Your task to perform on an android device: Go to ESPN.com Image 0: 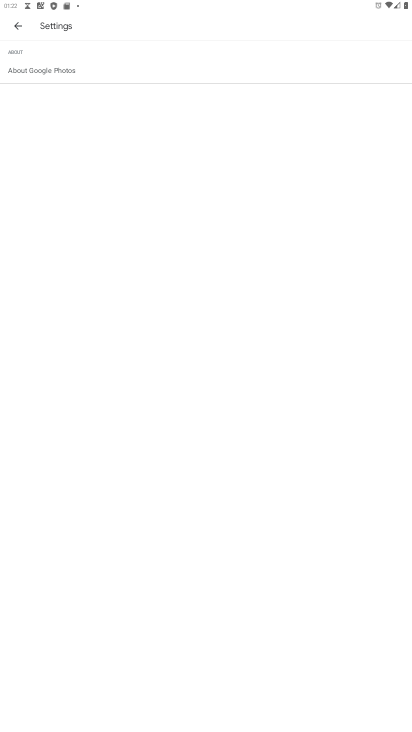
Step 0: press home button
Your task to perform on an android device: Go to ESPN.com Image 1: 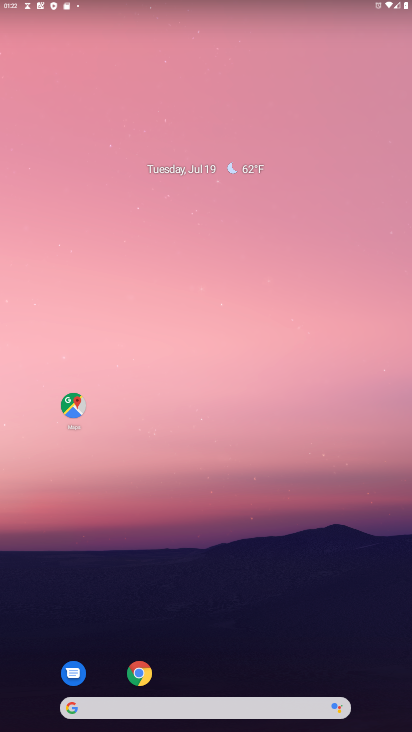
Step 1: drag from (258, 633) to (167, 42)
Your task to perform on an android device: Go to ESPN.com Image 2: 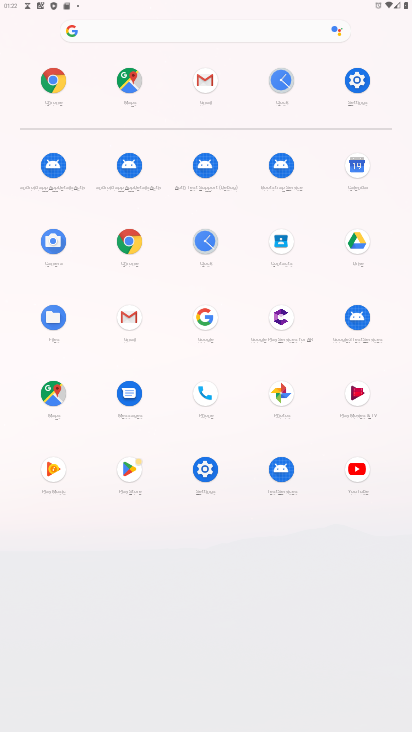
Step 2: click (47, 78)
Your task to perform on an android device: Go to ESPN.com Image 3: 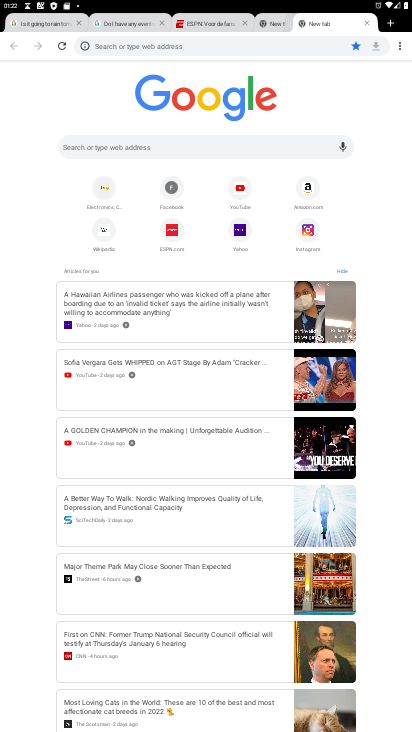
Step 3: click (184, 224)
Your task to perform on an android device: Go to ESPN.com Image 4: 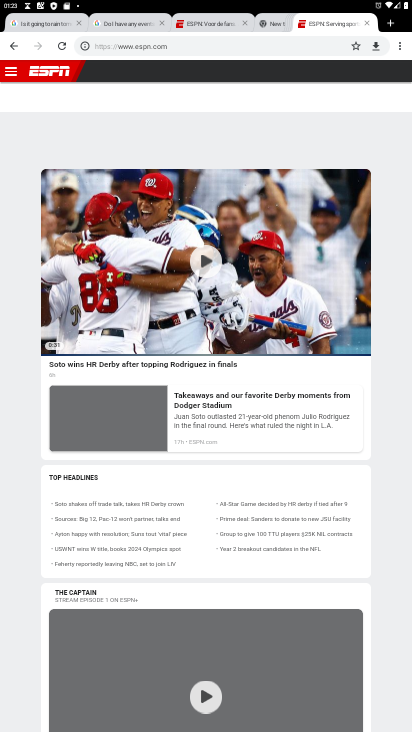
Step 4: task complete